Your task to perform on an android device: turn on data saver in the chrome app Image 0: 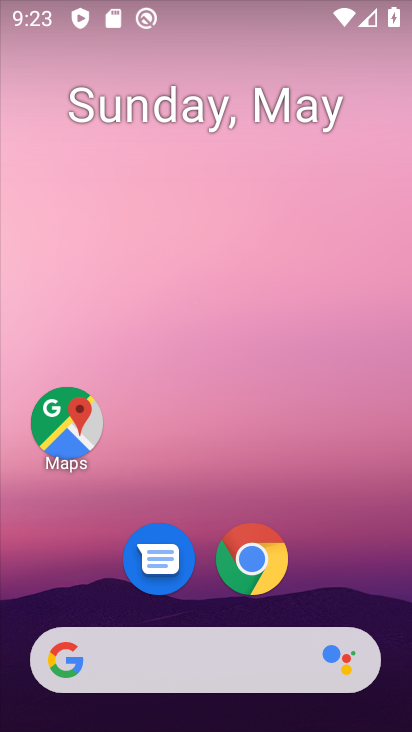
Step 0: click (256, 559)
Your task to perform on an android device: turn on data saver in the chrome app Image 1: 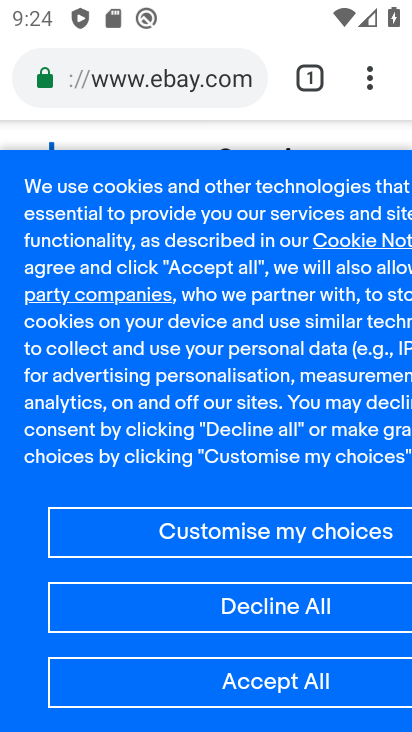
Step 1: click (374, 84)
Your task to perform on an android device: turn on data saver in the chrome app Image 2: 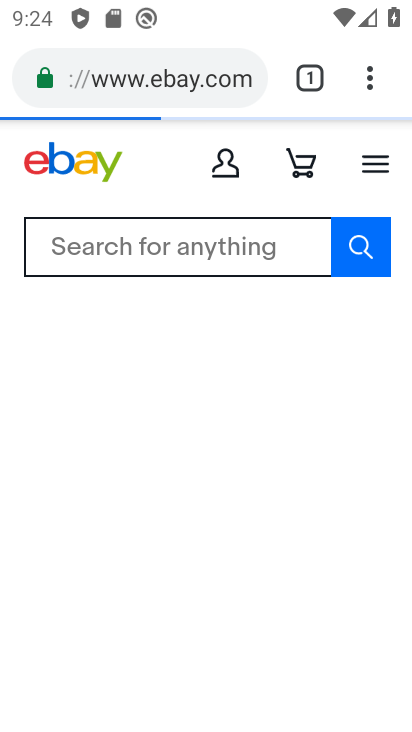
Step 2: drag from (374, 84) to (143, 628)
Your task to perform on an android device: turn on data saver in the chrome app Image 3: 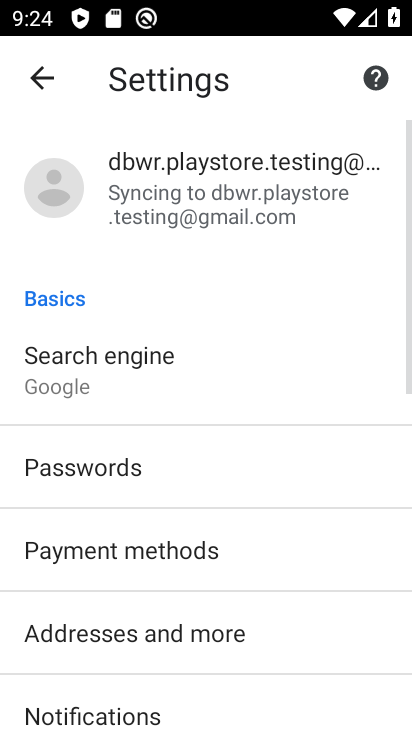
Step 3: drag from (278, 693) to (302, 252)
Your task to perform on an android device: turn on data saver in the chrome app Image 4: 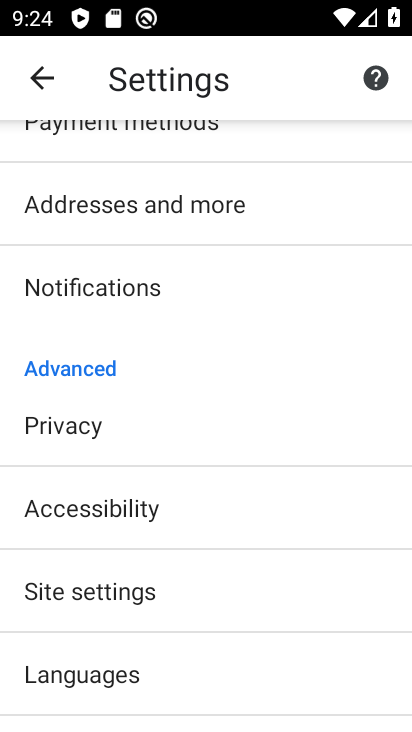
Step 4: drag from (191, 663) to (204, 333)
Your task to perform on an android device: turn on data saver in the chrome app Image 5: 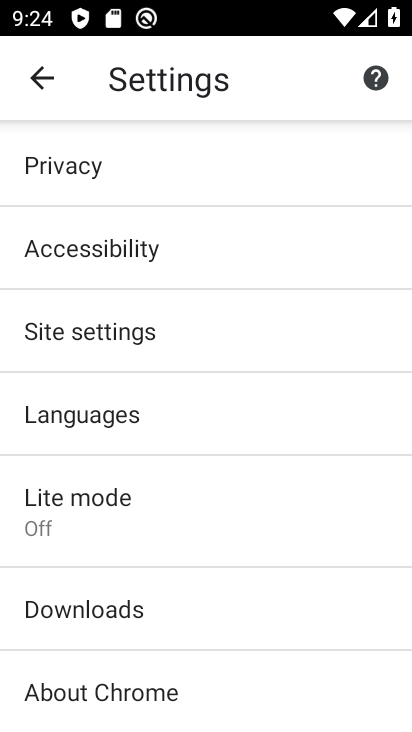
Step 5: click (60, 505)
Your task to perform on an android device: turn on data saver in the chrome app Image 6: 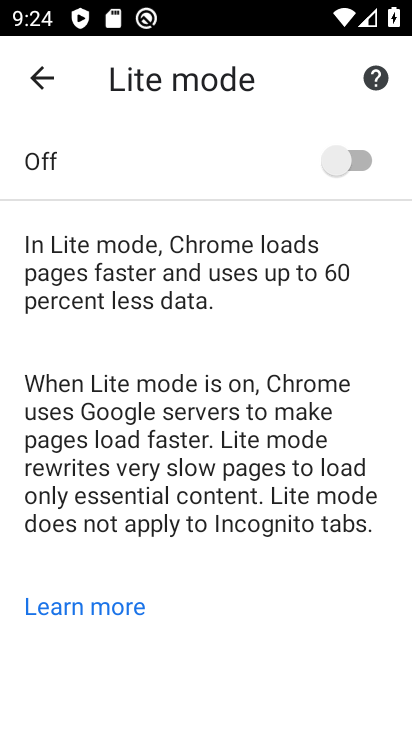
Step 6: click (356, 157)
Your task to perform on an android device: turn on data saver in the chrome app Image 7: 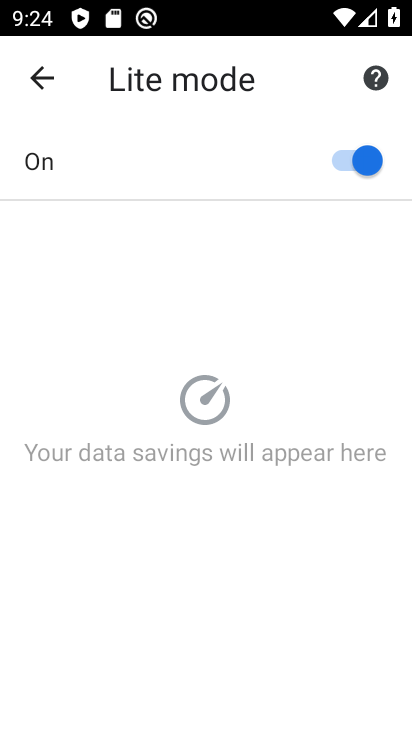
Step 7: task complete